Your task to perform on an android device: open sync settings in chrome Image 0: 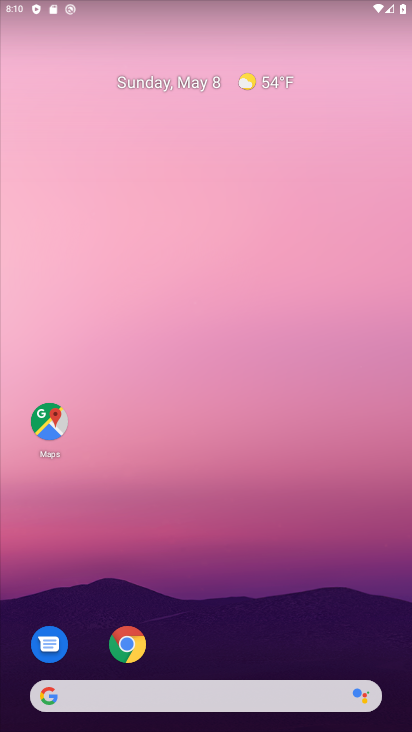
Step 0: click (135, 637)
Your task to perform on an android device: open sync settings in chrome Image 1: 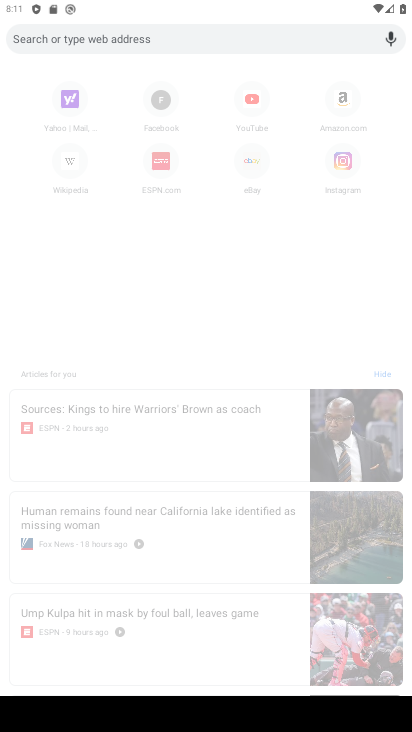
Step 1: drag from (256, 59) to (275, 512)
Your task to perform on an android device: open sync settings in chrome Image 2: 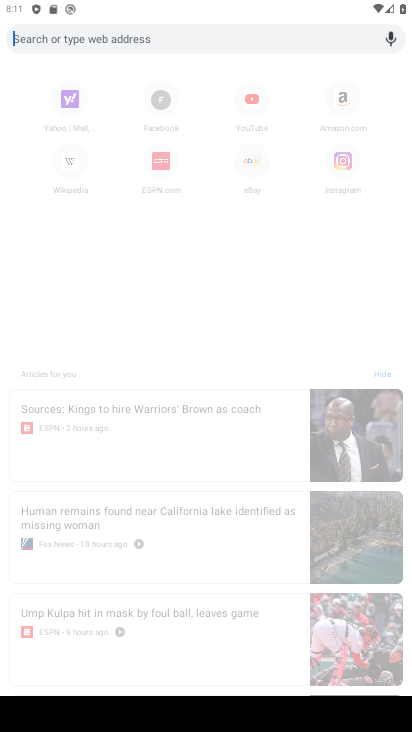
Step 2: drag from (213, 63) to (158, 513)
Your task to perform on an android device: open sync settings in chrome Image 3: 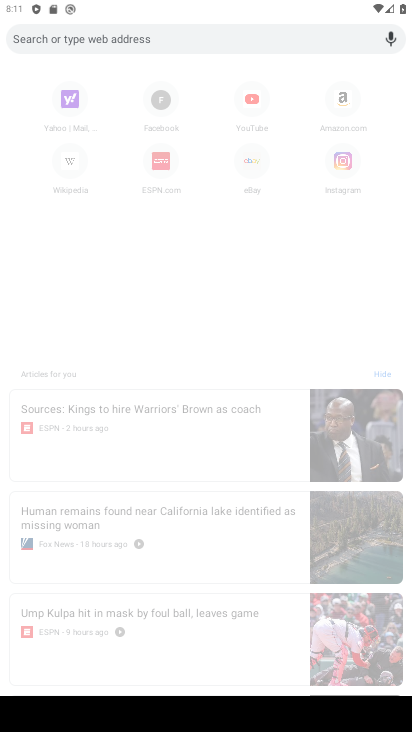
Step 3: drag from (230, 8) to (121, 626)
Your task to perform on an android device: open sync settings in chrome Image 4: 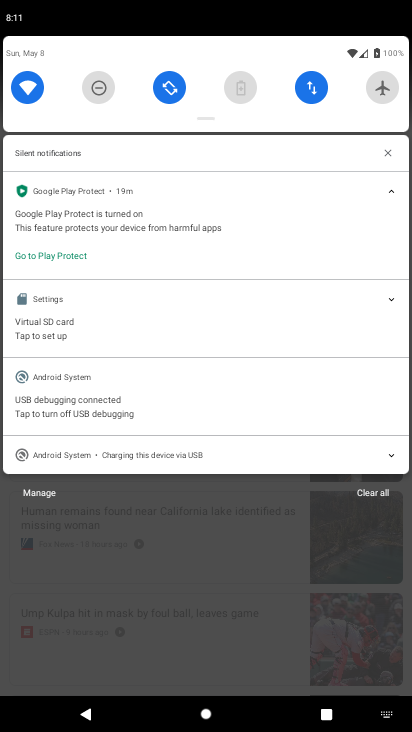
Step 4: drag from (200, 584) to (181, 355)
Your task to perform on an android device: open sync settings in chrome Image 5: 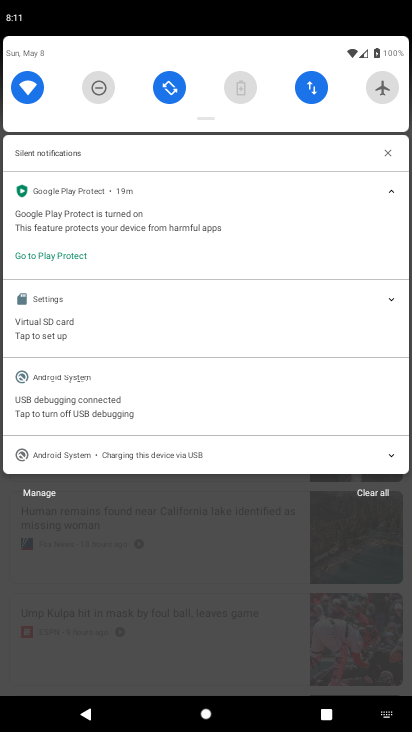
Step 5: click (376, 488)
Your task to perform on an android device: open sync settings in chrome Image 6: 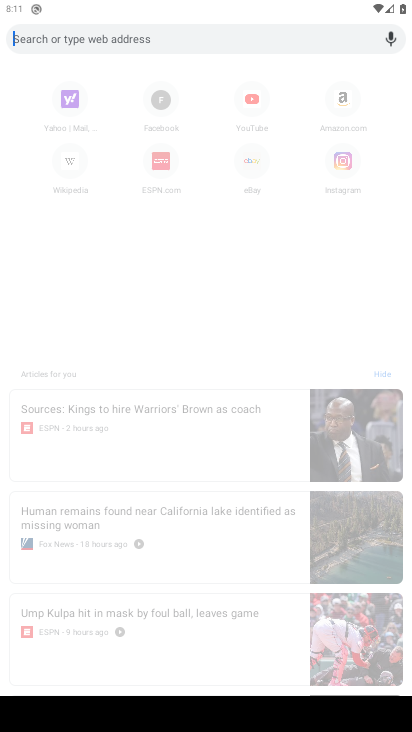
Step 6: drag from (228, 74) to (173, 491)
Your task to perform on an android device: open sync settings in chrome Image 7: 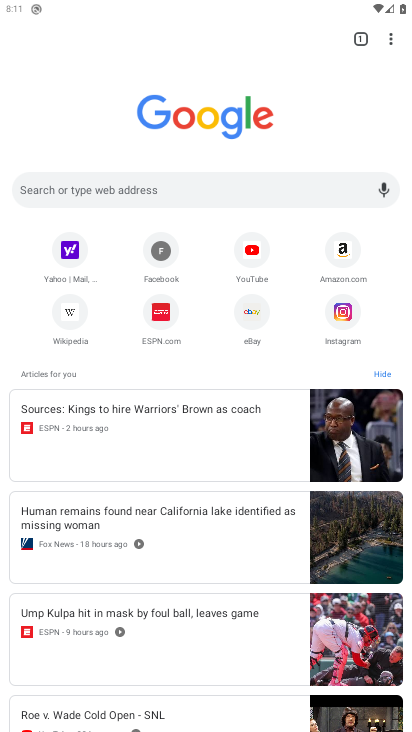
Step 7: click (391, 44)
Your task to perform on an android device: open sync settings in chrome Image 8: 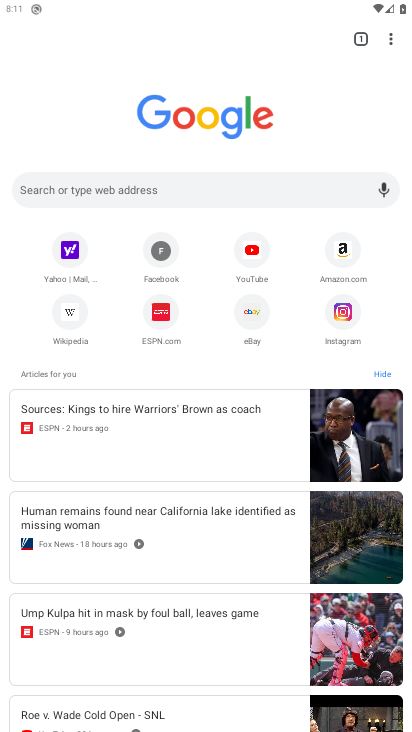
Step 8: click (391, 44)
Your task to perform on an android device: open sync settings in chrome Image 9: 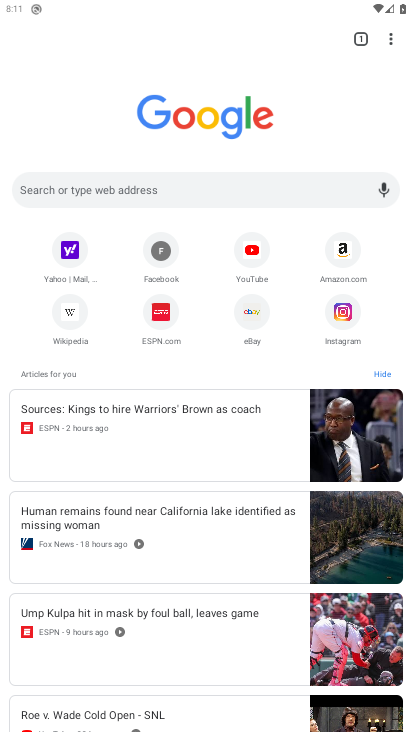
Step 9: click (396, 36)
Your task to perform on an android device: open sync settings in chrome Image 10: 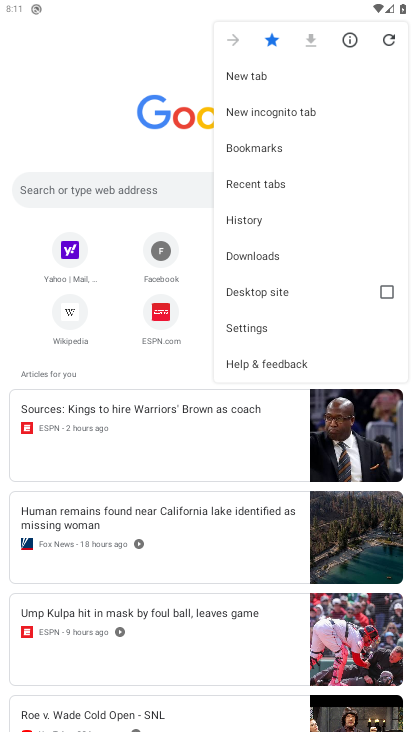
Step 10: click (257, 325)
Your task to perform on an android device: open sync settings in chrome Image 11: 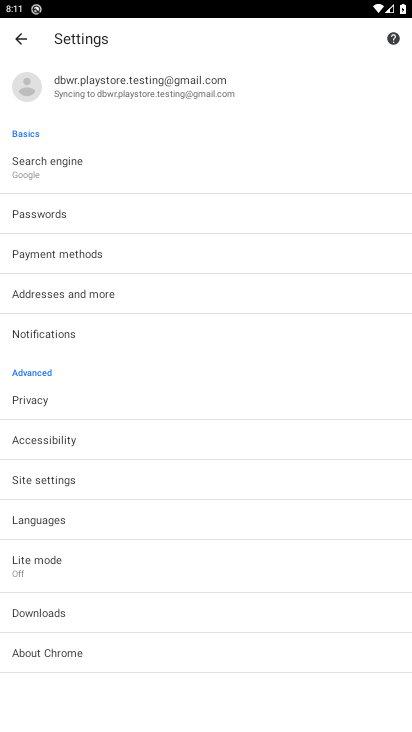
Step 11: click (53, 478)
Your task to perform on an android device: open sync settings in chrome Image 12: 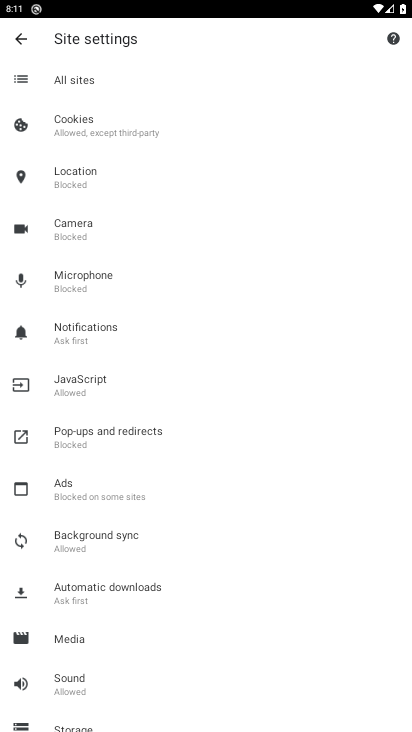
Step 12: click (22, 45)
Your task to perform on an android device: open sync settings in chrome Image 13: 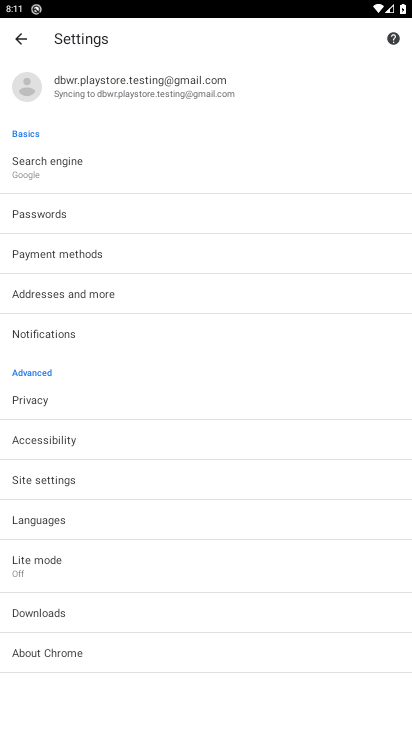
Step 13: click (92, 78)
Your task to perform on an android device: open sync settings in chrome Image 14: 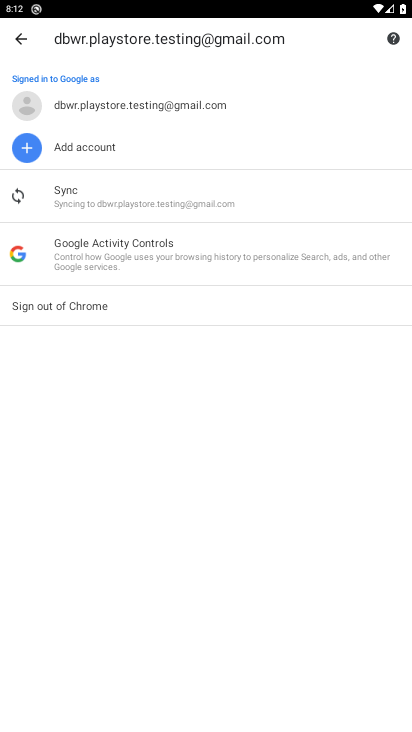
Step 14: click (116, 195)
Your task to perform on an android device: open sync settings in chrome Image 15: 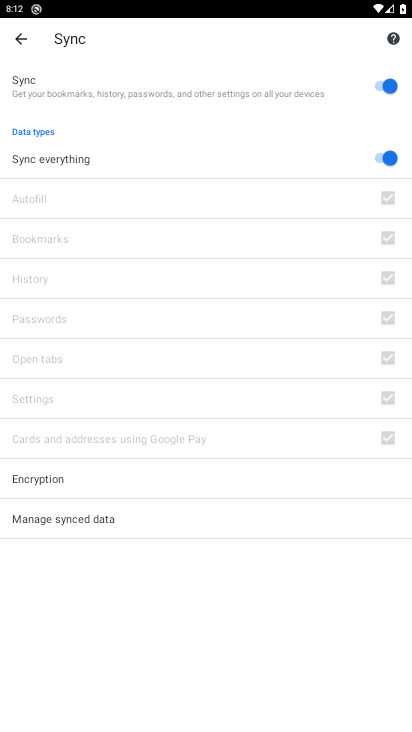
Step 15: task complete